Your task to perform on an android device: turn on improve location accuracy Image 0: 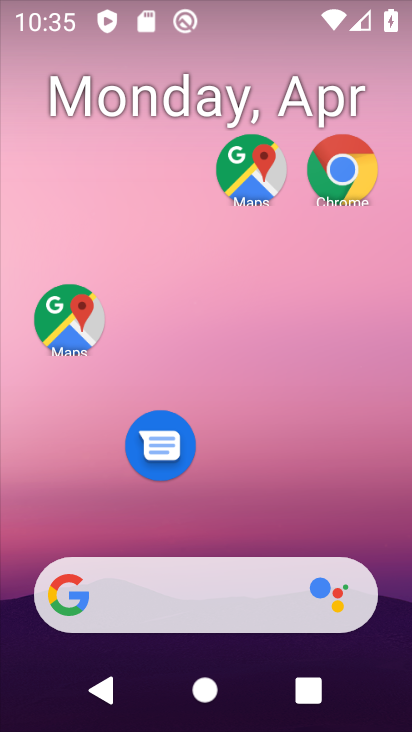
Step 0: drag from (270, 500) to (334, 44)
Your task to perform on an android device: turn on improve location accuracy Image 1: 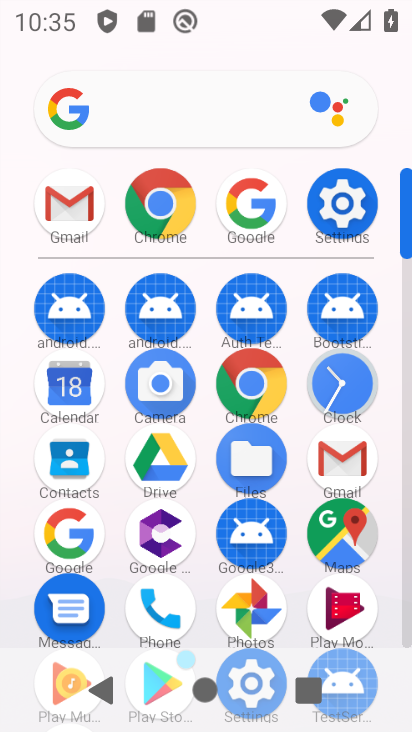
Step 1: click (323, 220)
Your task to perform on an android device: turn on improve location accuracy Image 2: 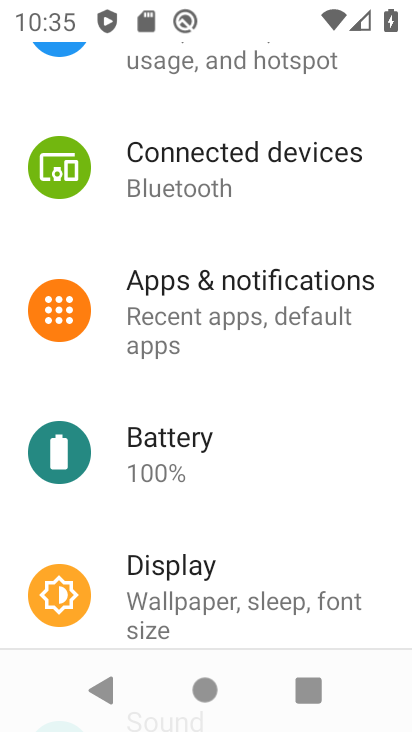
Step 2: drag from (212, 520) to (361, 127)
Your task to perform on an android device: turn on improve location accuracy Image 3: 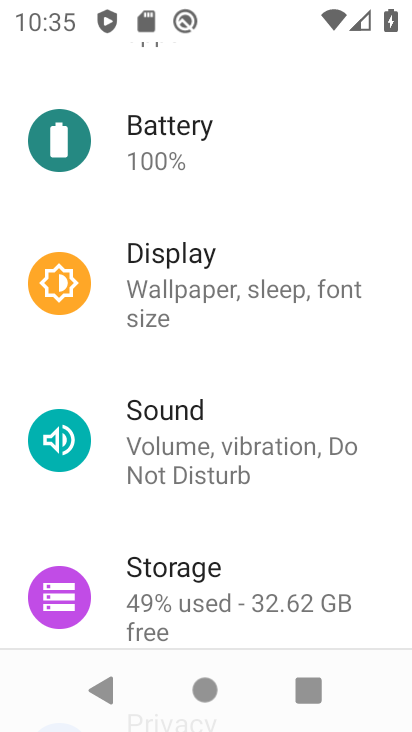
Step 3: drag from (296, 520) to (411, 197)
Your task to perform on an android device: turn on improve location accuracy Image 4: 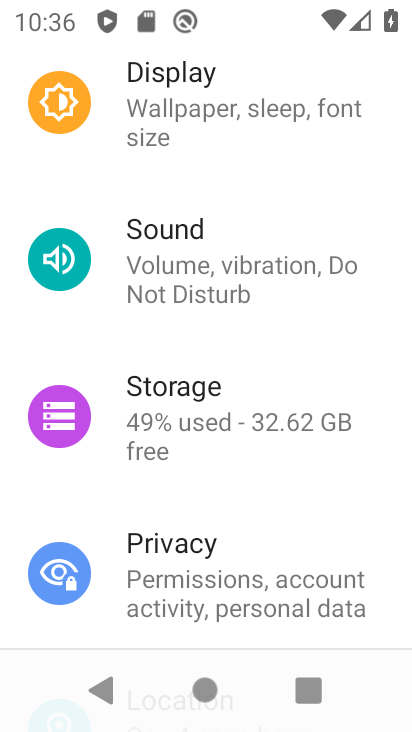
Step 4: drag from (292, 500) to (287, 43)
Your task to perform on an android device: turn on improve location accuracy Image 5: 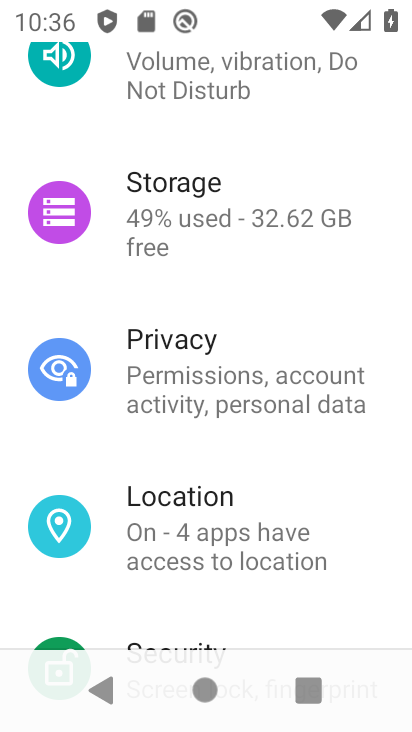
Step 5: click (226, 507)
Your task to perform on an android device: turn on improve location accuracy Image 6: 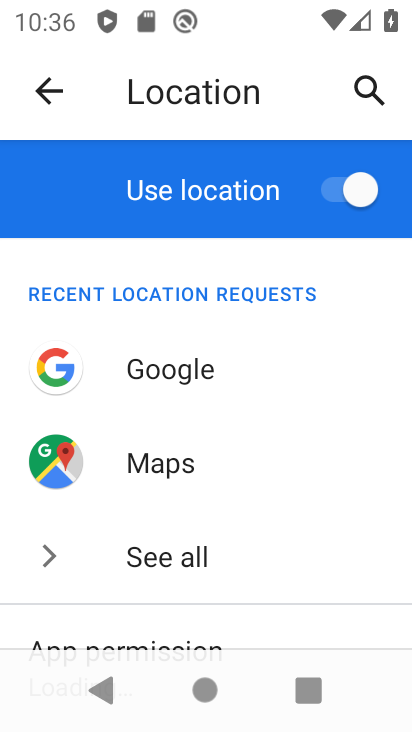
Step 6: drag from (279, 572) to (302, 180)
Your task to perform on an android device: turn on improve location accuracy Image 7: 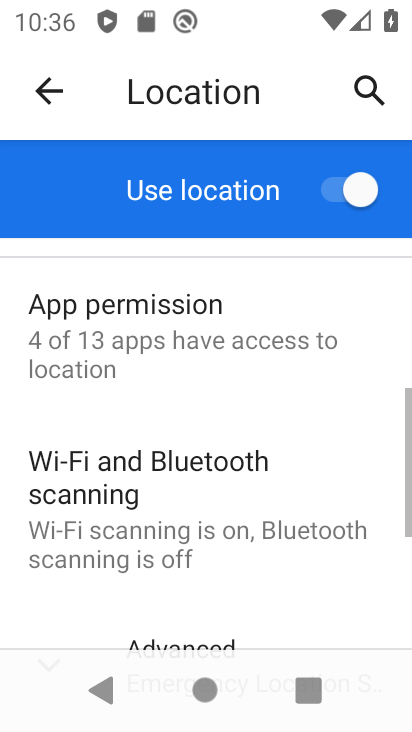
Step 7: drag from (314, 575) to (338, 252)
Your task to perform on an android device: turn on improve location accuracy Image 8: 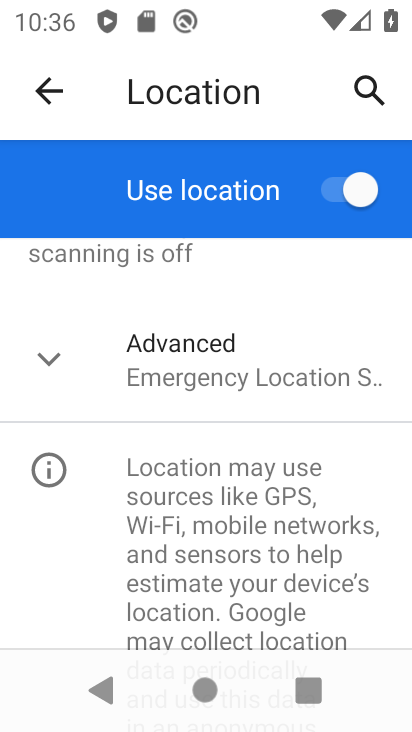
Step 8: click (263, 377)
Your task to perform on an android device: turn on improve location accuracy Image 9: 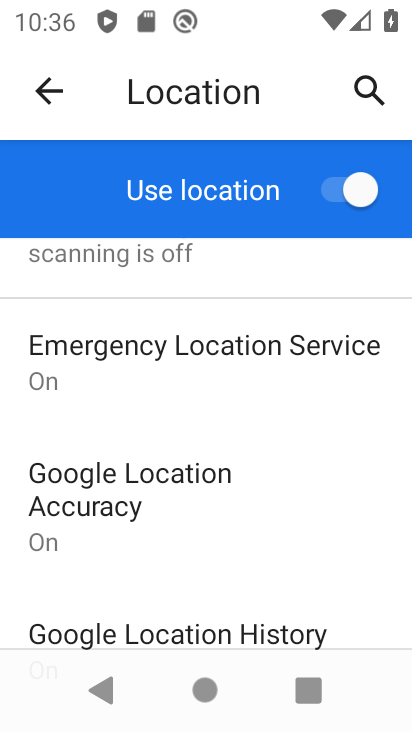
Step 9: task complete